Your task to perform on an android device: Go to display settings Image 0: 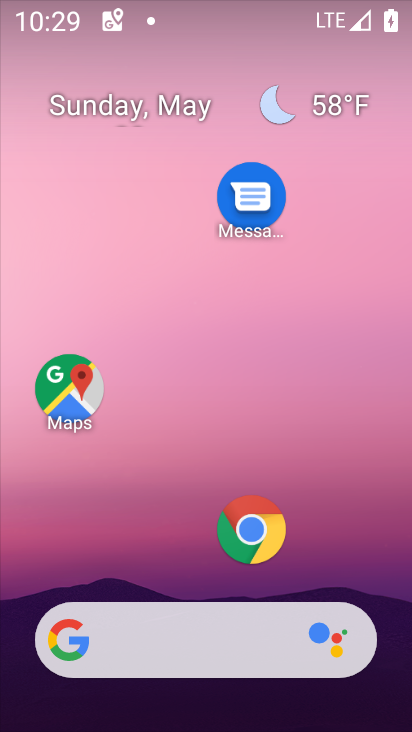
Step 0: drag from (156, 587) to (181, 101)
Your task to perform on an android device: Go to display settings Image 1: 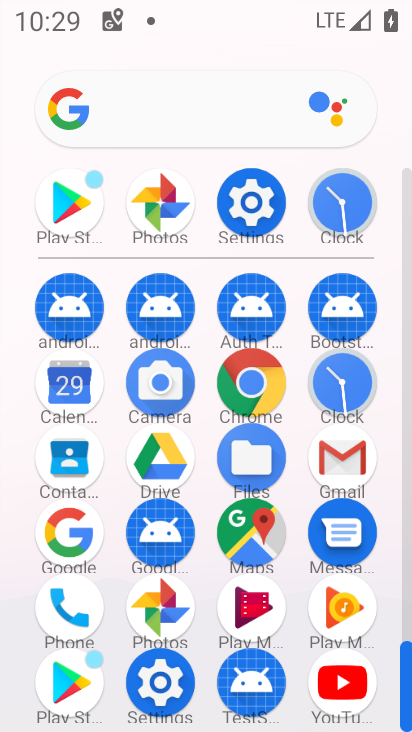
Step 1: click (248, 217)
Your task to perform on an android device: Go to display settings Image 2: 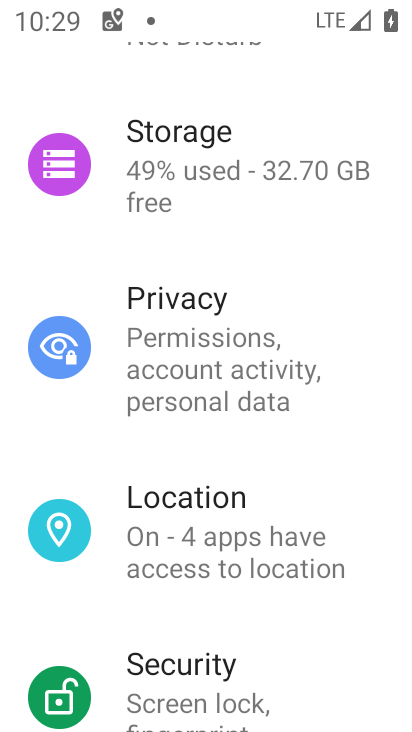
Step 2: drag from (256, 167) to (190, 594)
Your task to perform on an android device: Go to display settings Image 3: 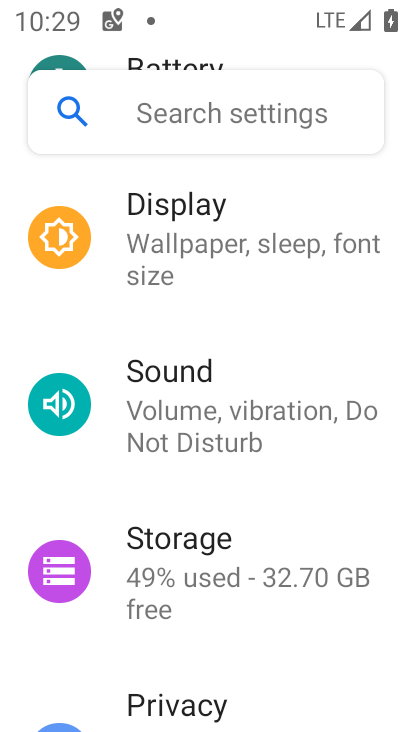
Step 3: click (213, 246)
Your task to perform on an android device: Go to display settings Image 4: 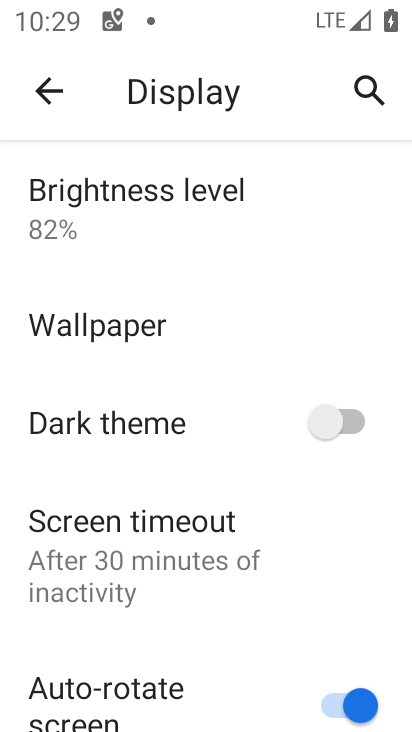
Step 4: task complete